Your task to perform on an android device: Open Google Maps and go to "Timeline" Image 0: 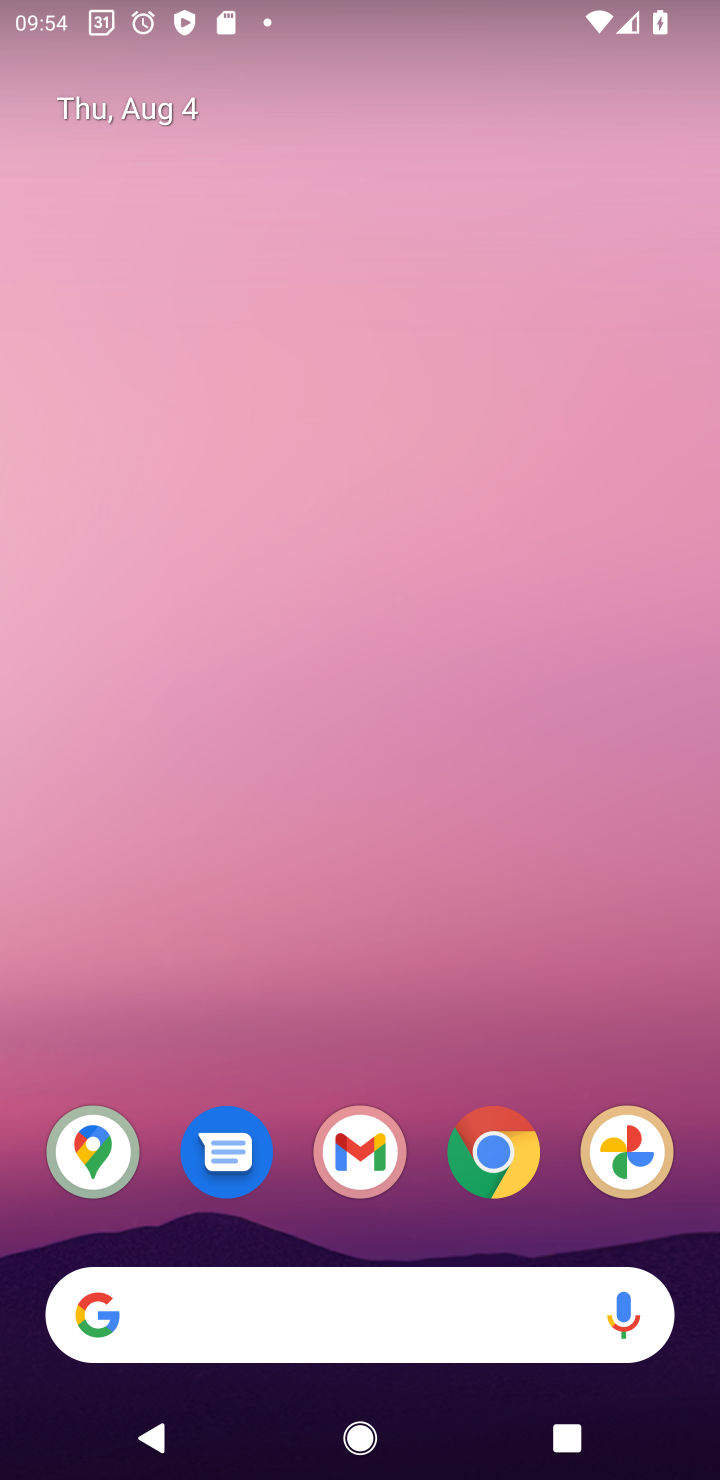
Step 0: click (96, 1154)
Your task to perform on an android device: Open Google Maps and go to "Timeline" Image 1: 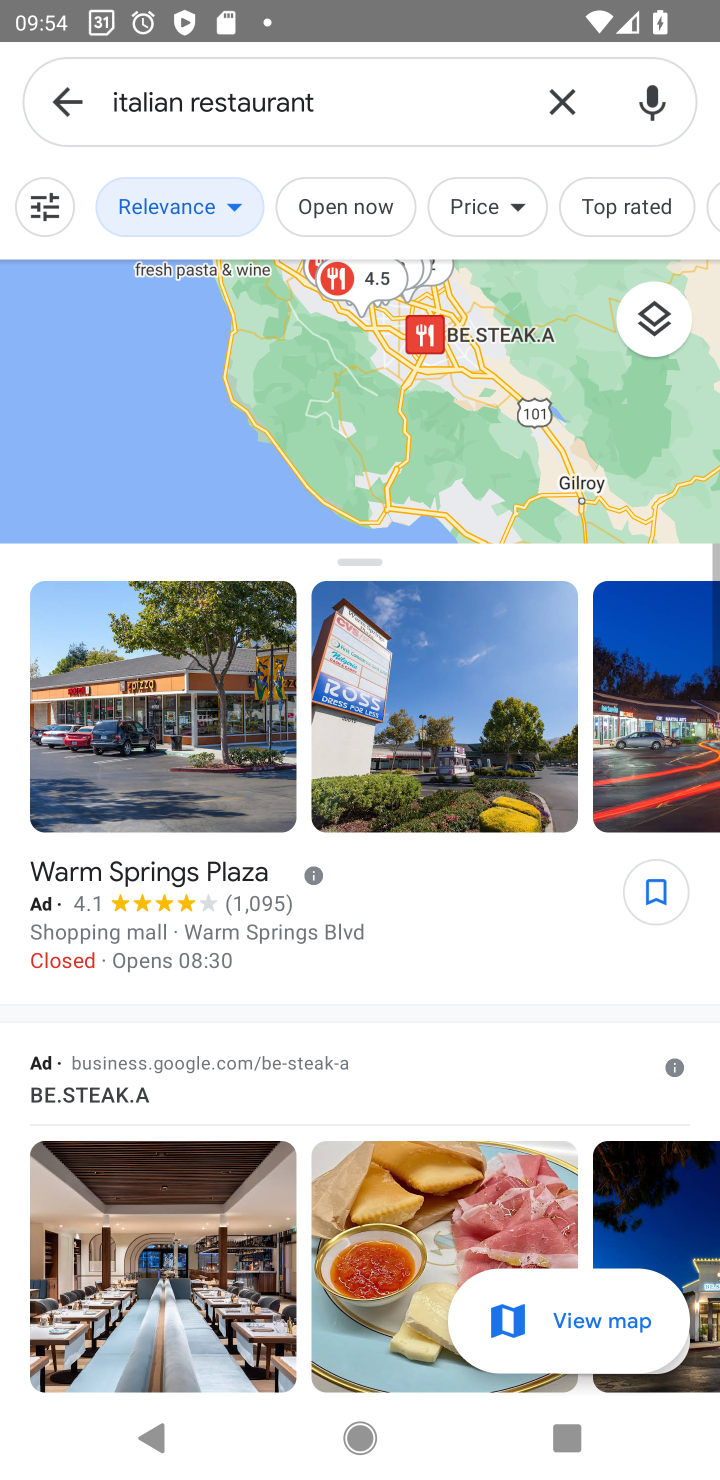
Step 1: click (560, 99)
Your task to perform on an android device: Open Google Maps and go to "Timeline" Image 2: 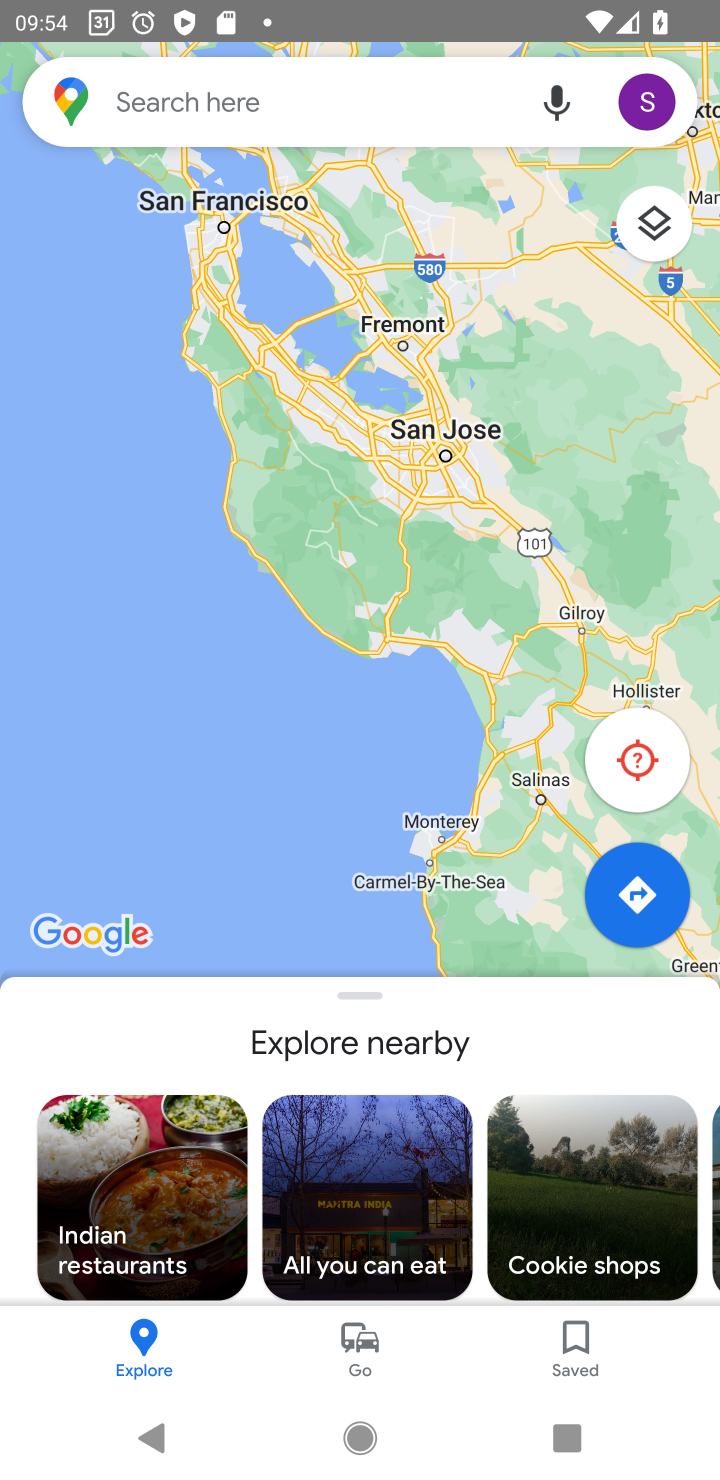
Step 2: click (667, 97)
Your task to perform on an android device: Open Google Maps and go to "Timeline" Image 3: 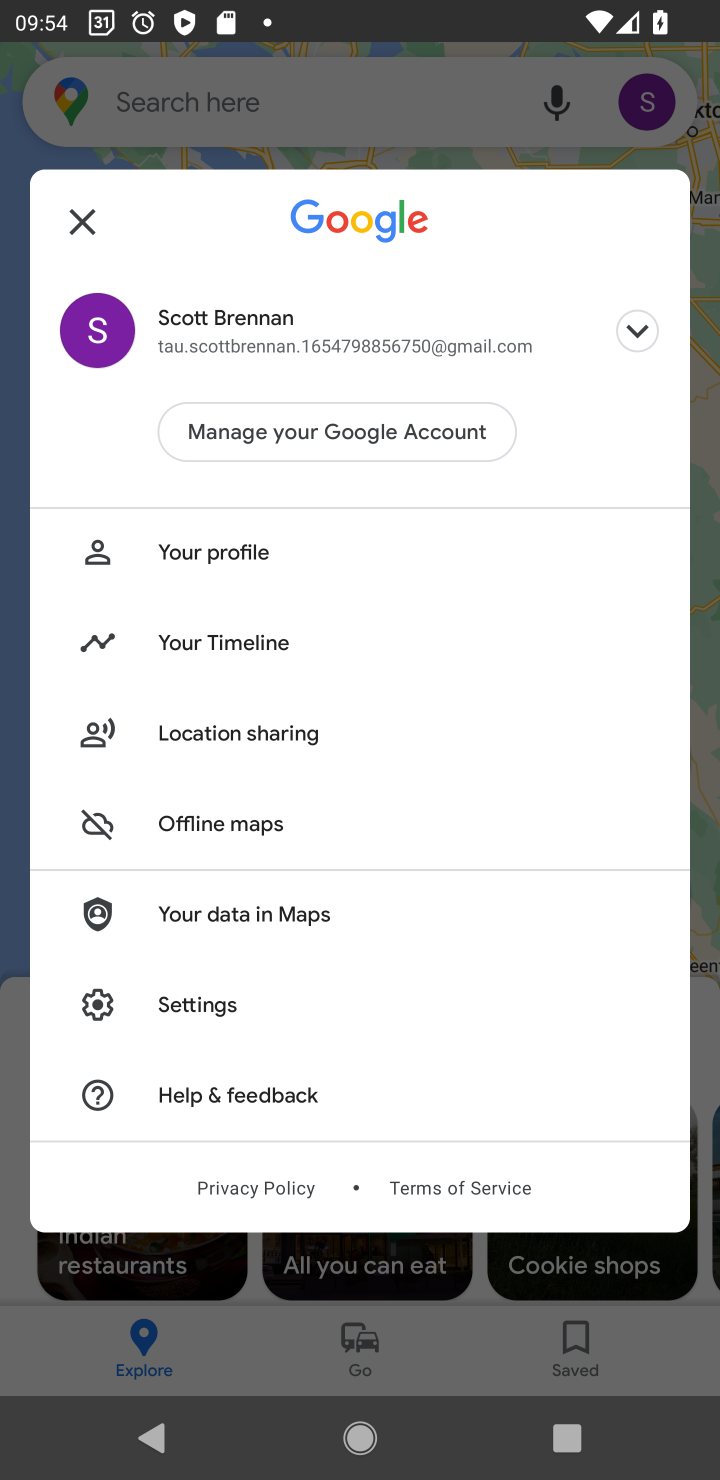
Step 3: click (242, 644)
Your task to perform on an android device: Open Google Maps and go to "Timeline" Image 4: 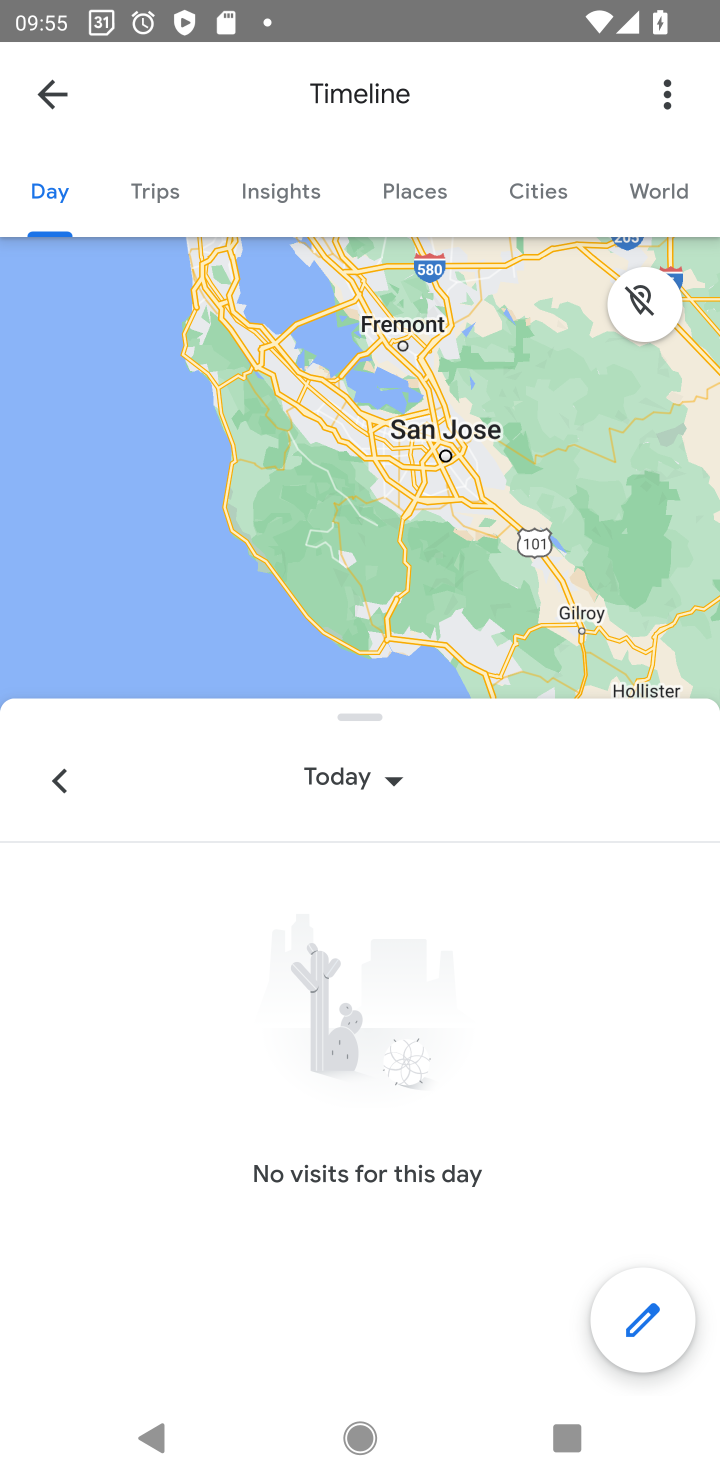
Step 4: task complete